Your task to perform on an android device: turn on sleep mode Image 0: 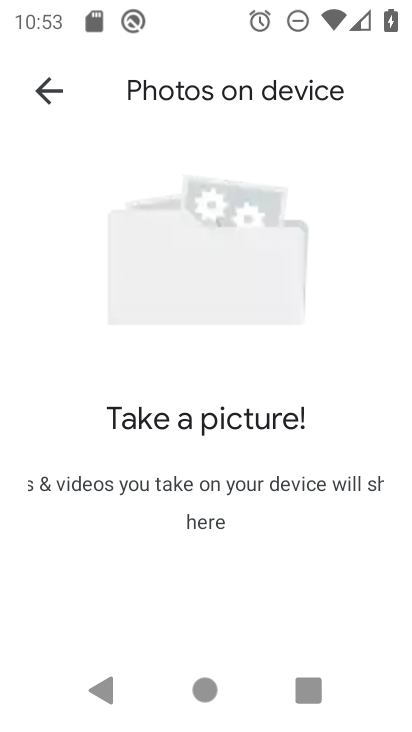
Step 0: drag from (179, 26) to (96, 482)
Your task to perform on an android device: turn on sleep mode Image 1: 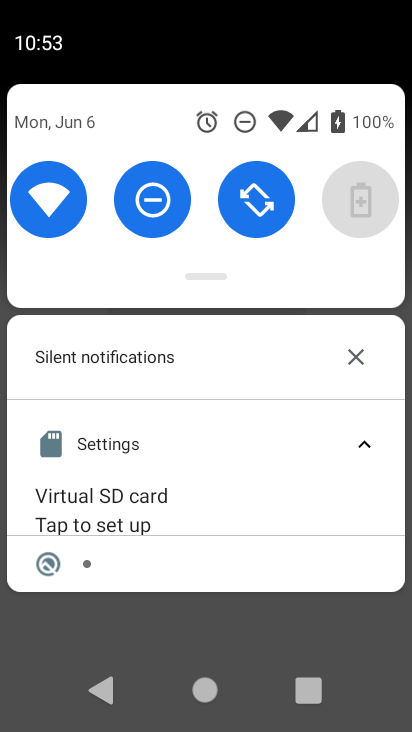
Step 1: drag from (192, 128) to (212, 662)
Your task to perform on an android device: turn on sleep mode Image 2: 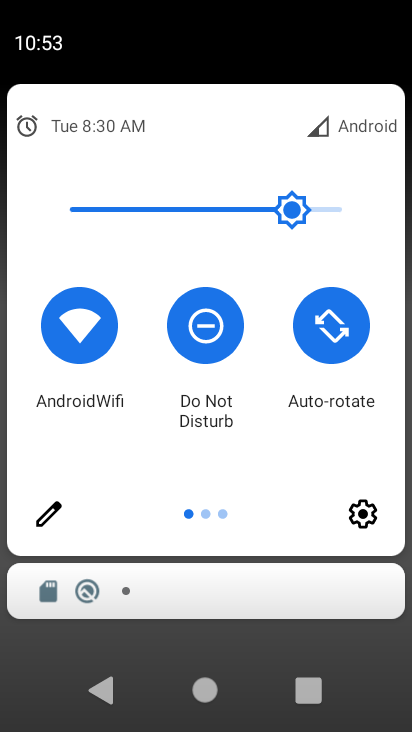
Step 2: click (365, 504)
Your task to perform on an android device: turn on sleep mode Image 3: 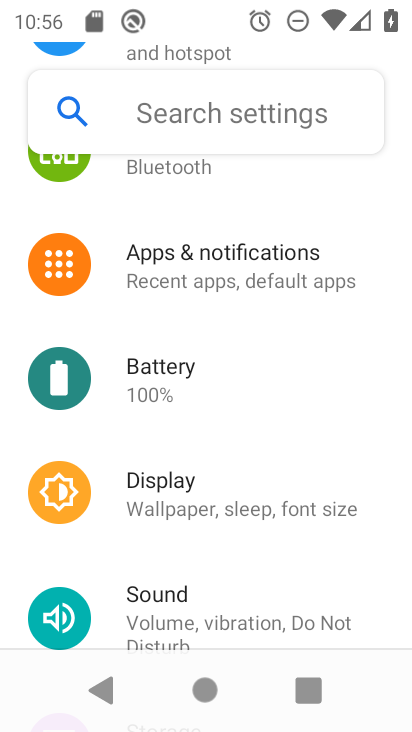
Step 3: task complete